Your task to perform on an android device: Check the weather Image 0: 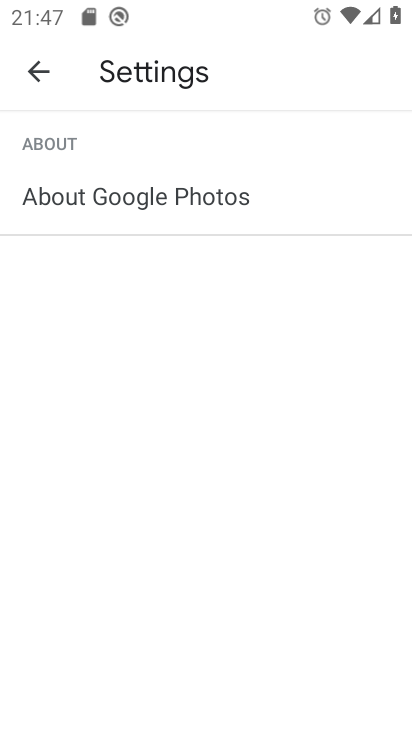
Step 0: press home button
Your task to perform on an android device: Check the weather Image 1: 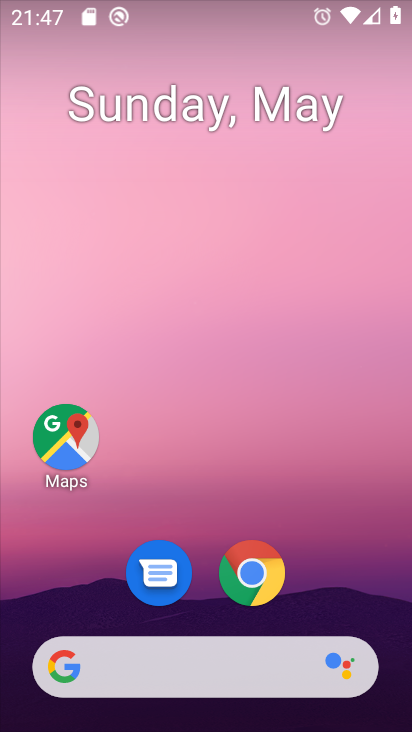
Step 1: click (250, 663)
Your task to perform on an android device: Check the weather Image 2: 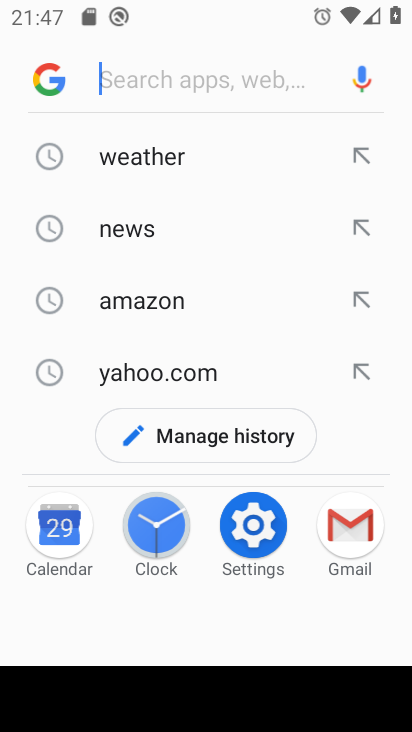
Step 2: click (150, 148)
Your task to perform on an android device: Check the weather Image 3: 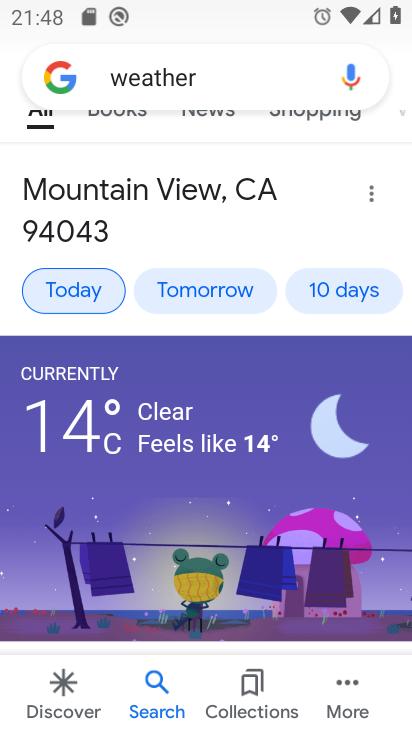
Step 3: click (93, 286)
Your task to perform on an android device: Check the weather Image 4: 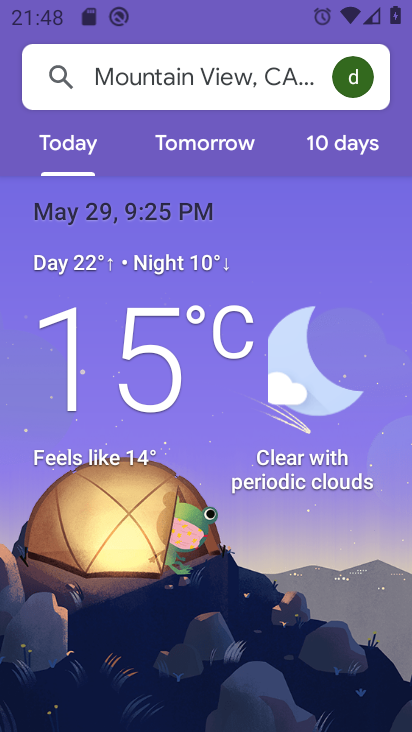
Step 4: task complete